Your task to perform on an android device: Open the Play Movies app and select the watchlist tab. Image 0: 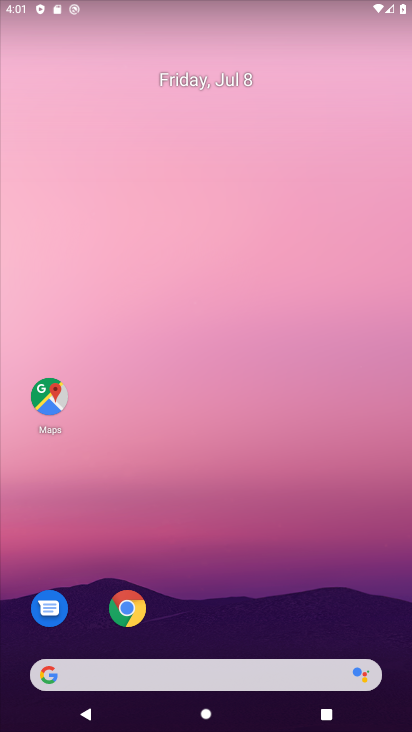
Step 0: press home button
Your task to perform on an android device: Open the Play Movies app and select the watchlist tab. Image 1: 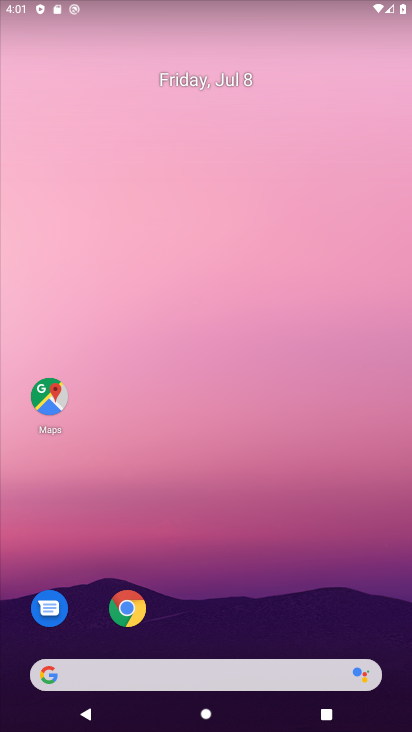
Step 1: drag from (223, 648) to (252, 67)
Your task to perform on an android device: Open the Play Movies app and select the watchlist tab. Image 2: 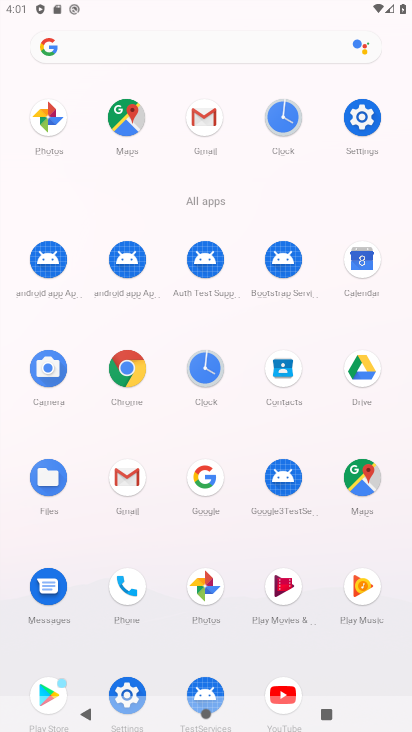
Step 2: click (281, 587)
Your task to perform on an android device: Open the Play Movies app and select the watchlist tab. Image 3: 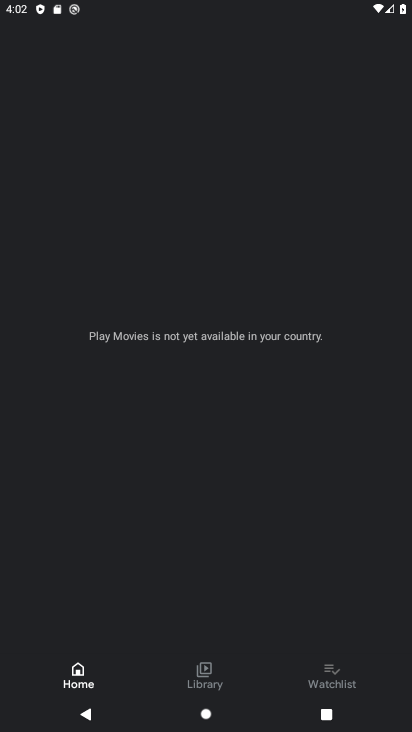
Step 3: click (340, 673)
Your task to perform on an android device: Open the Play Movies app and select the watchlist tab. Image 4: 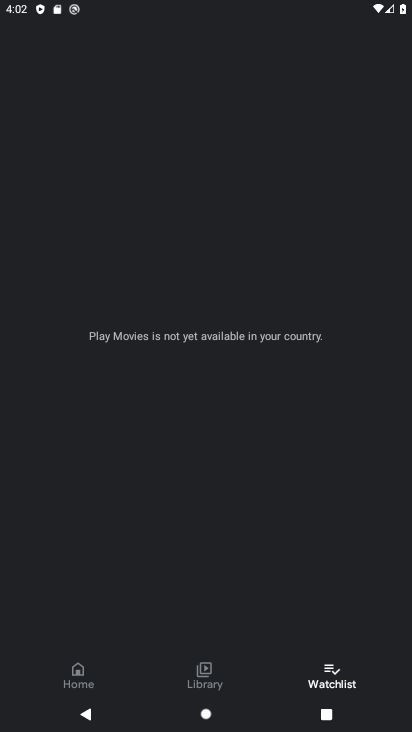
Step 4: task complete